Your task to perform on an android device: Open Google Maps and go to "Timeline" Image 0: 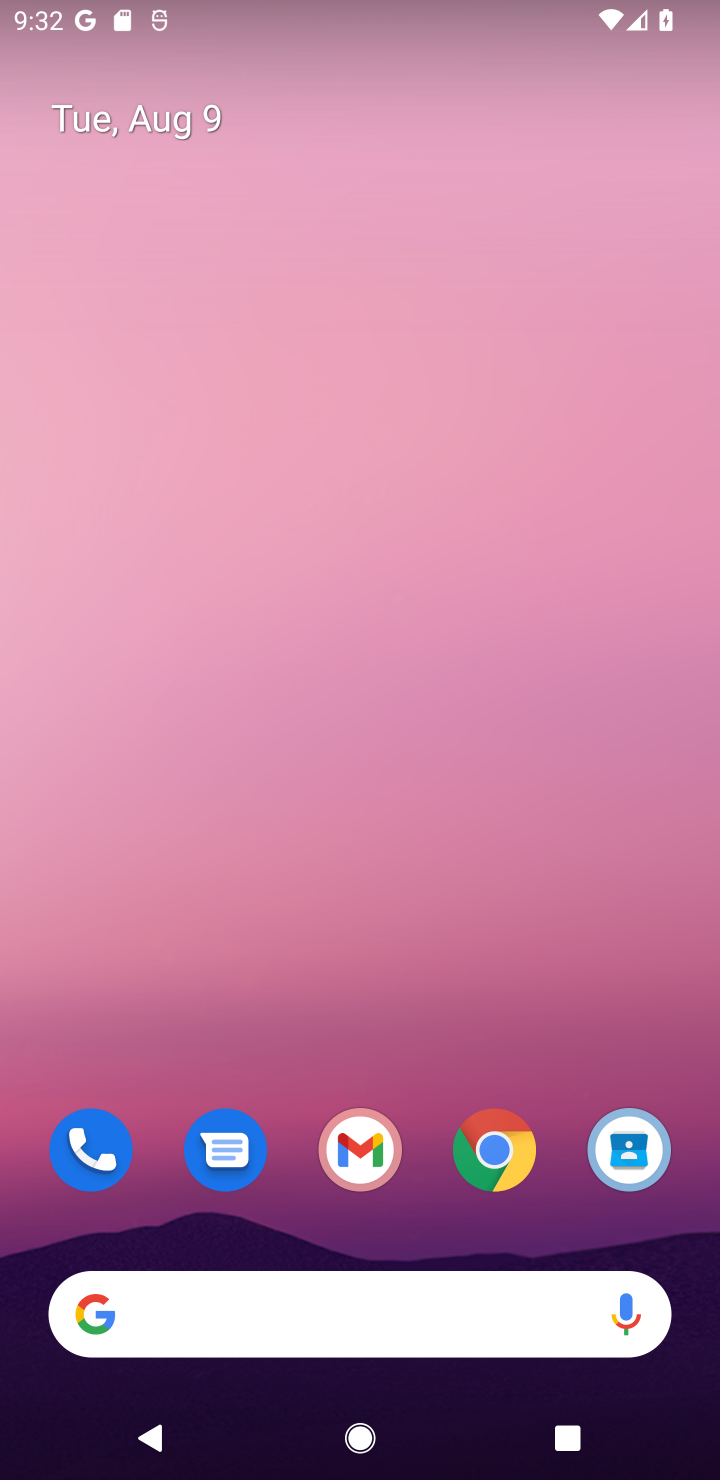
Step 0: drag from (394, 1211) to (438, 603)
Your task to perform on an android device: Open Google Maps and go to "Timeline" Image 1: 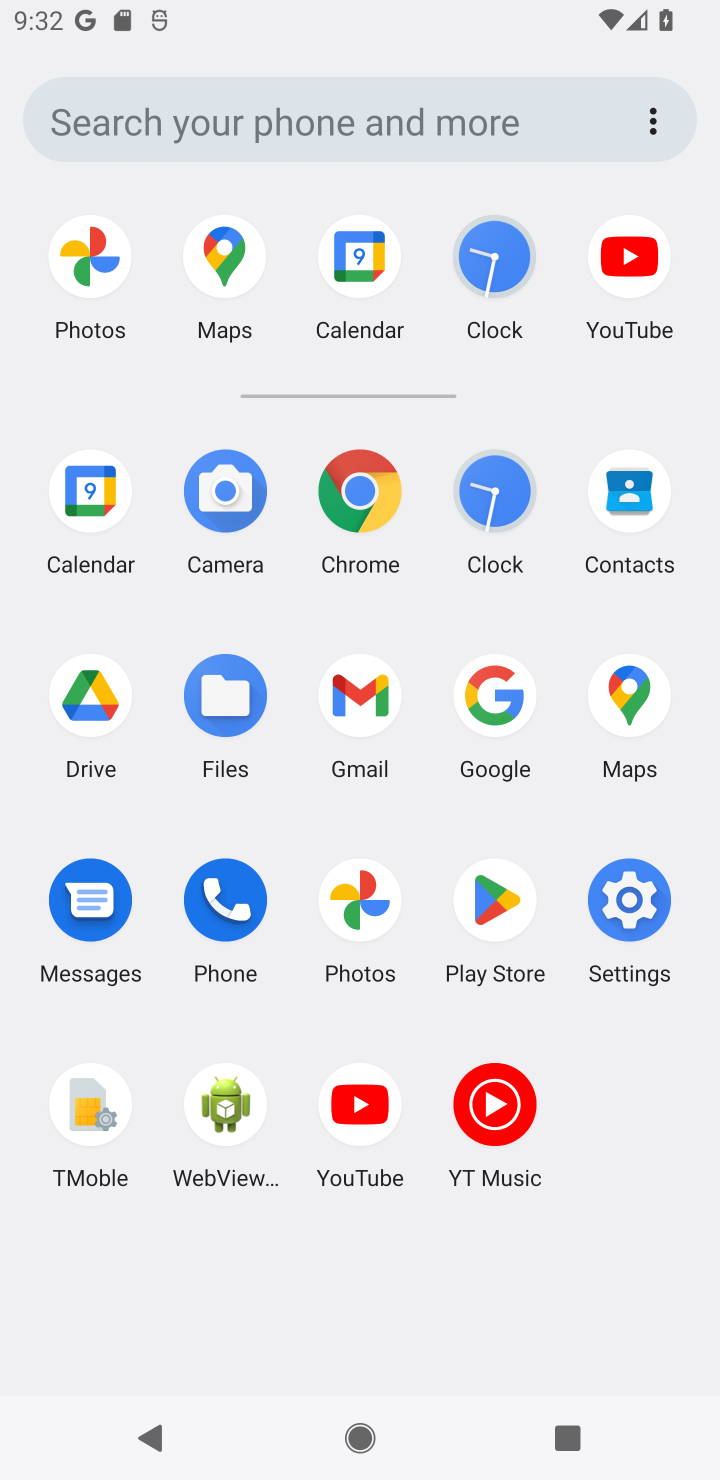
Step 1: click (508, 710)
Your task to perform on an android device: Open Google Maps and go to "Timeline" Image 2: 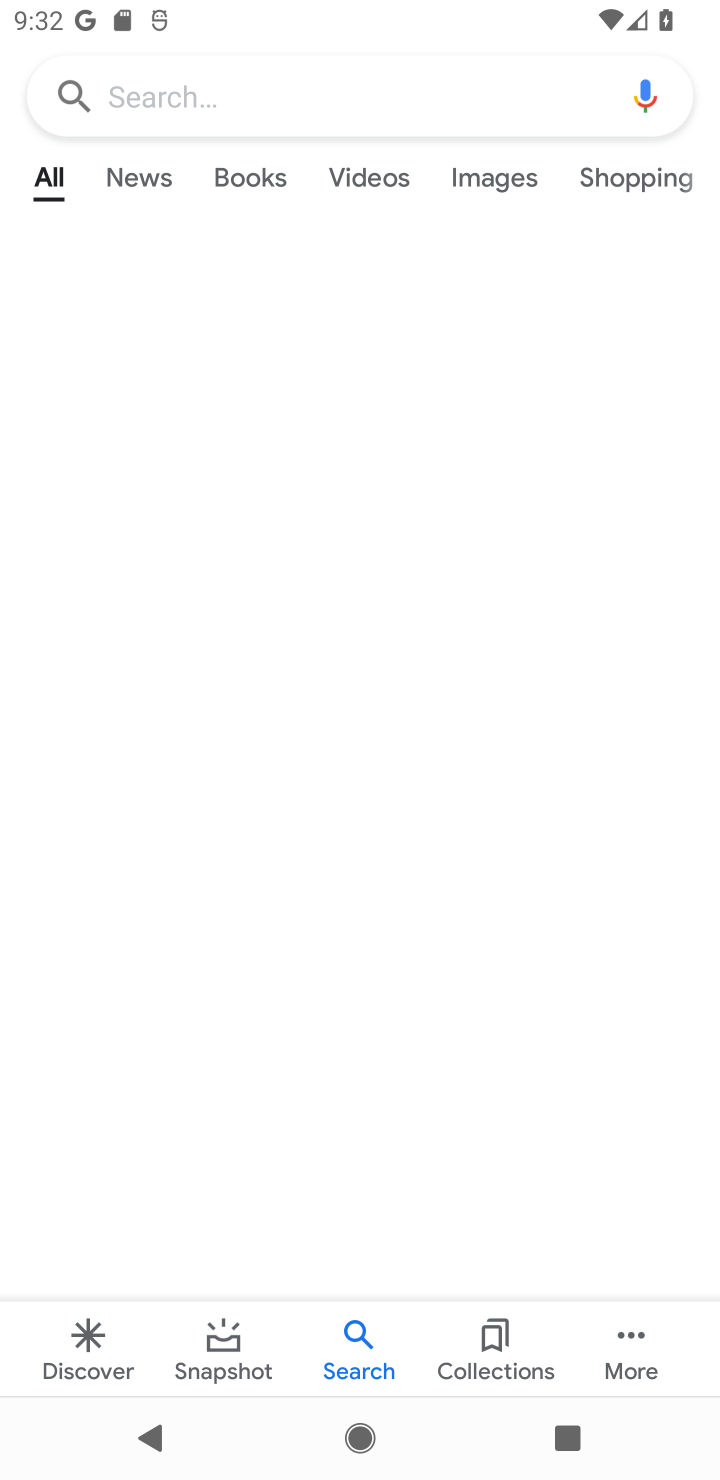
Step 2: press home button
Your task to perform on an android device: Open Google Maps and go to "Timeline" Image 3: 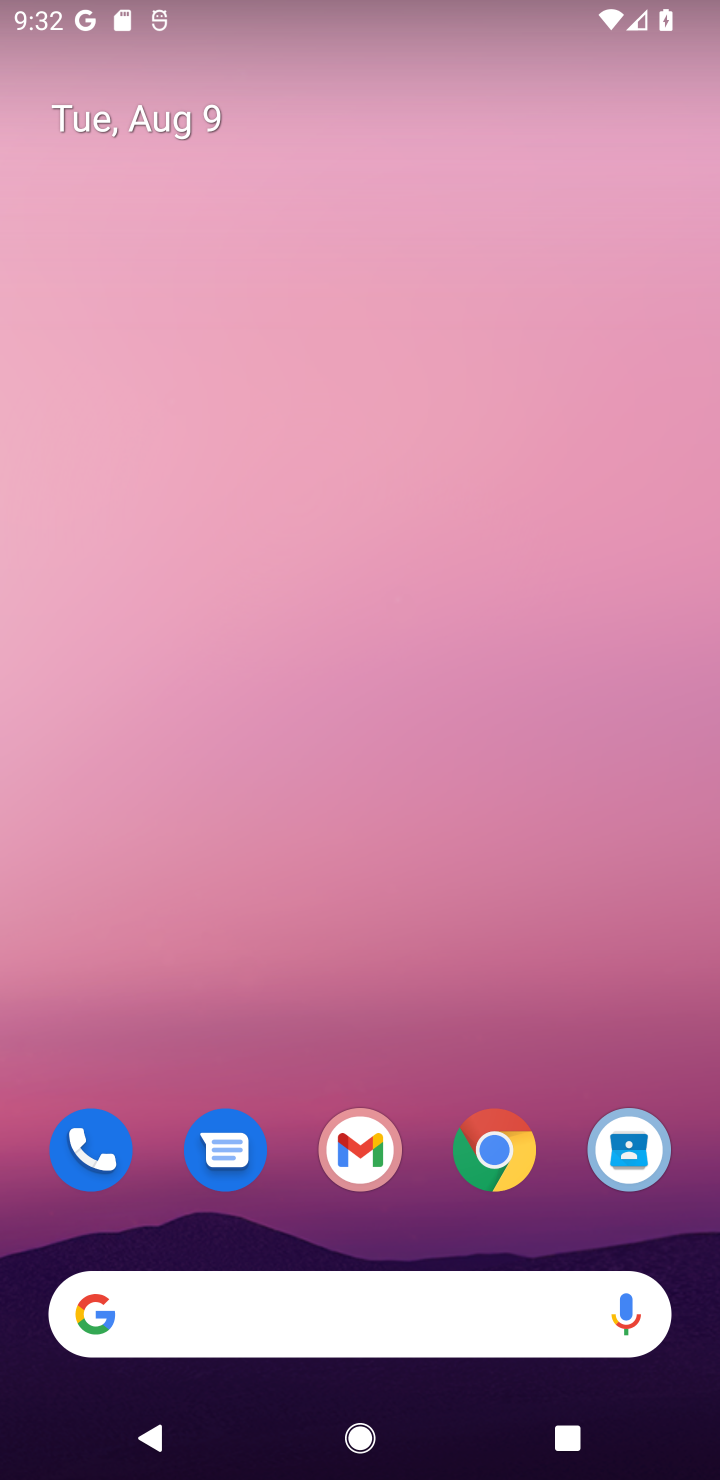
Step 3: drag from (265, 1267) to (298, 1081)
Your task to perform on an android device: Open Google Maps and go to "Timeline" Image 4: 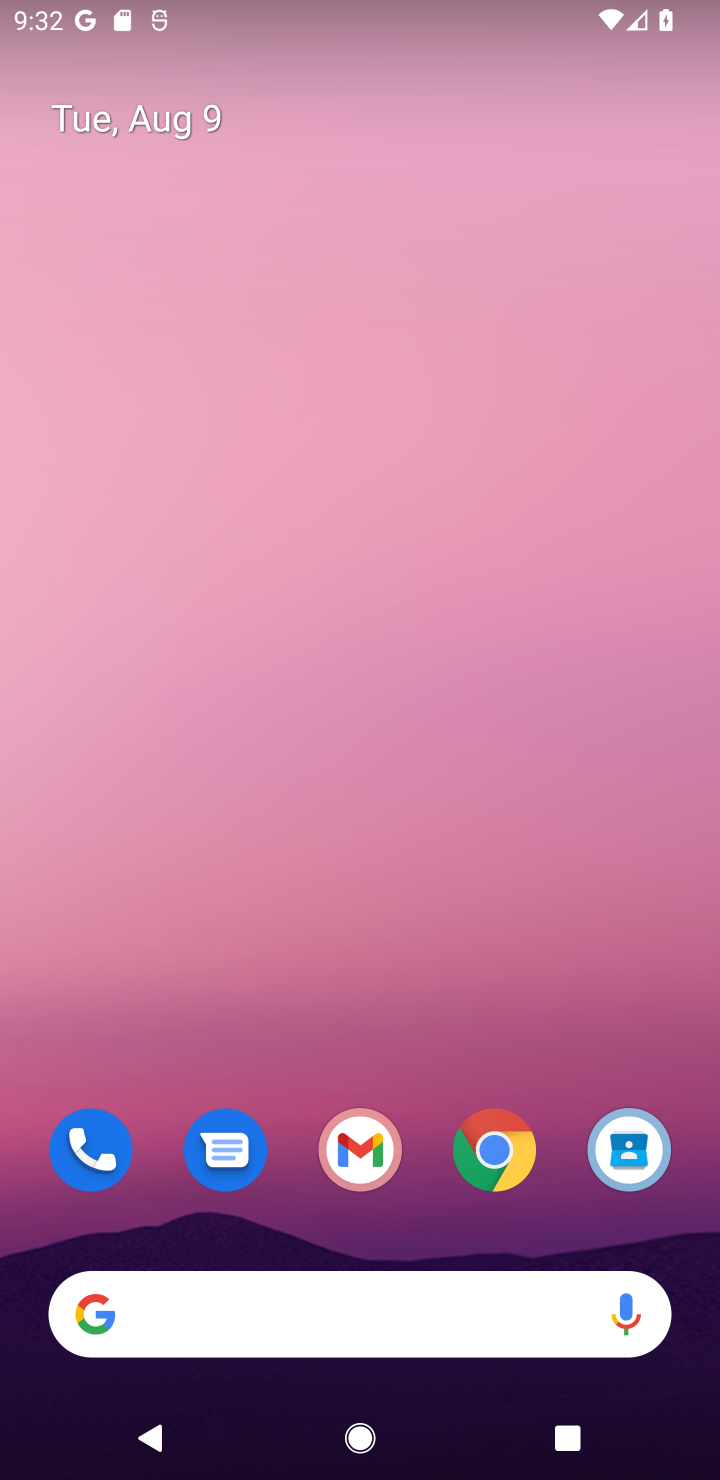
Step 4: drag from (304, 1380) to (466, 347)
Your task to perform on an android device: Open Google Maps and go to "Timeline" Image 5: 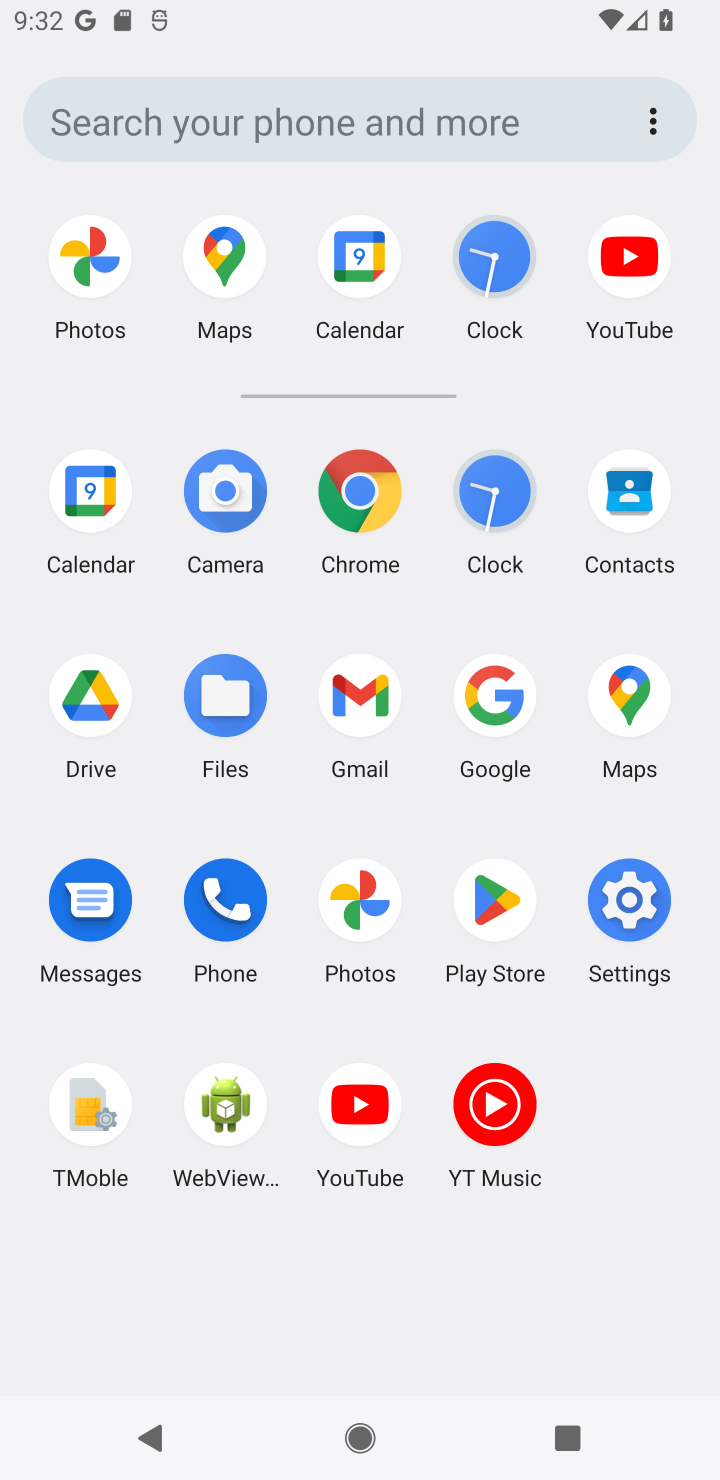
Step 5: click (591, 733)
Your task to perform on an android device: Open Google Maps and go to "Timeline" Image 6: 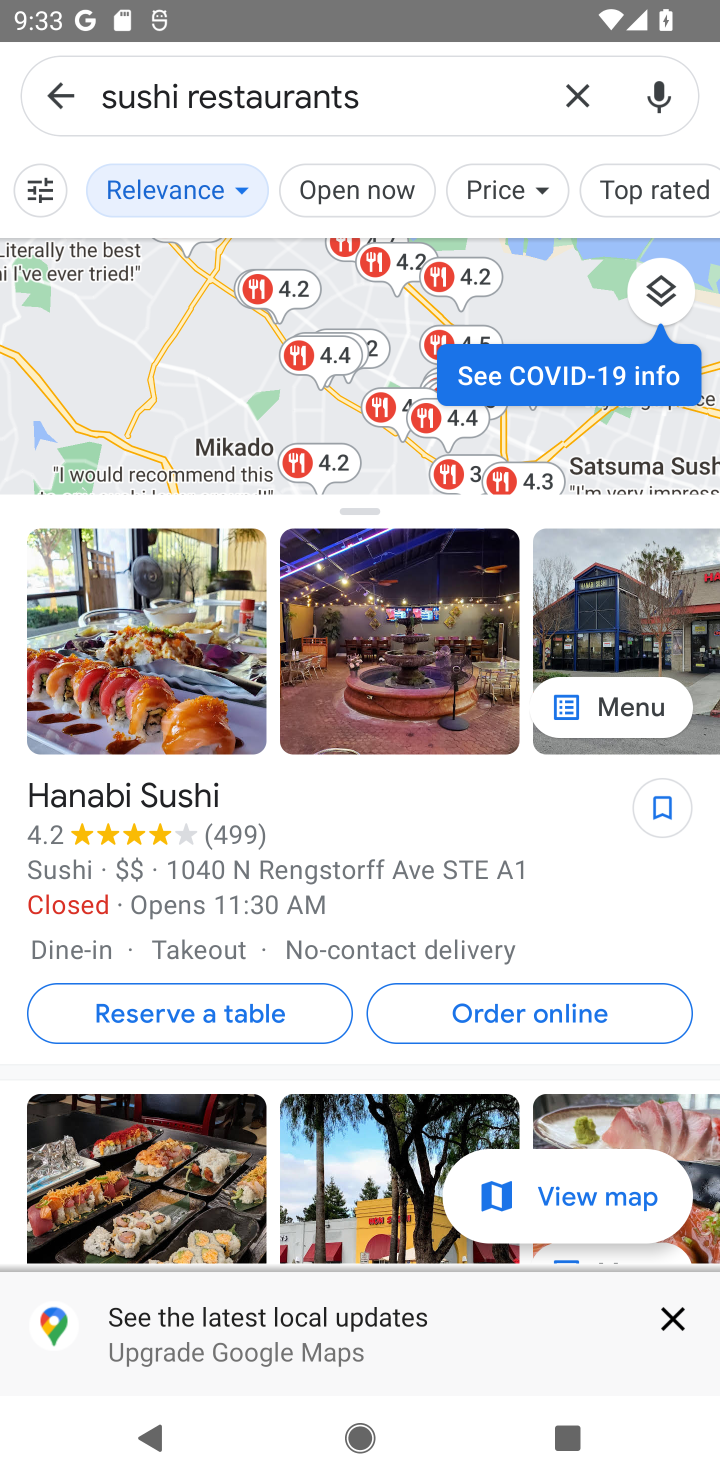
Step 6: click (45, 106)
Your task to perform on an android device: Open Google Maps and go to "Timeline" Image 7: 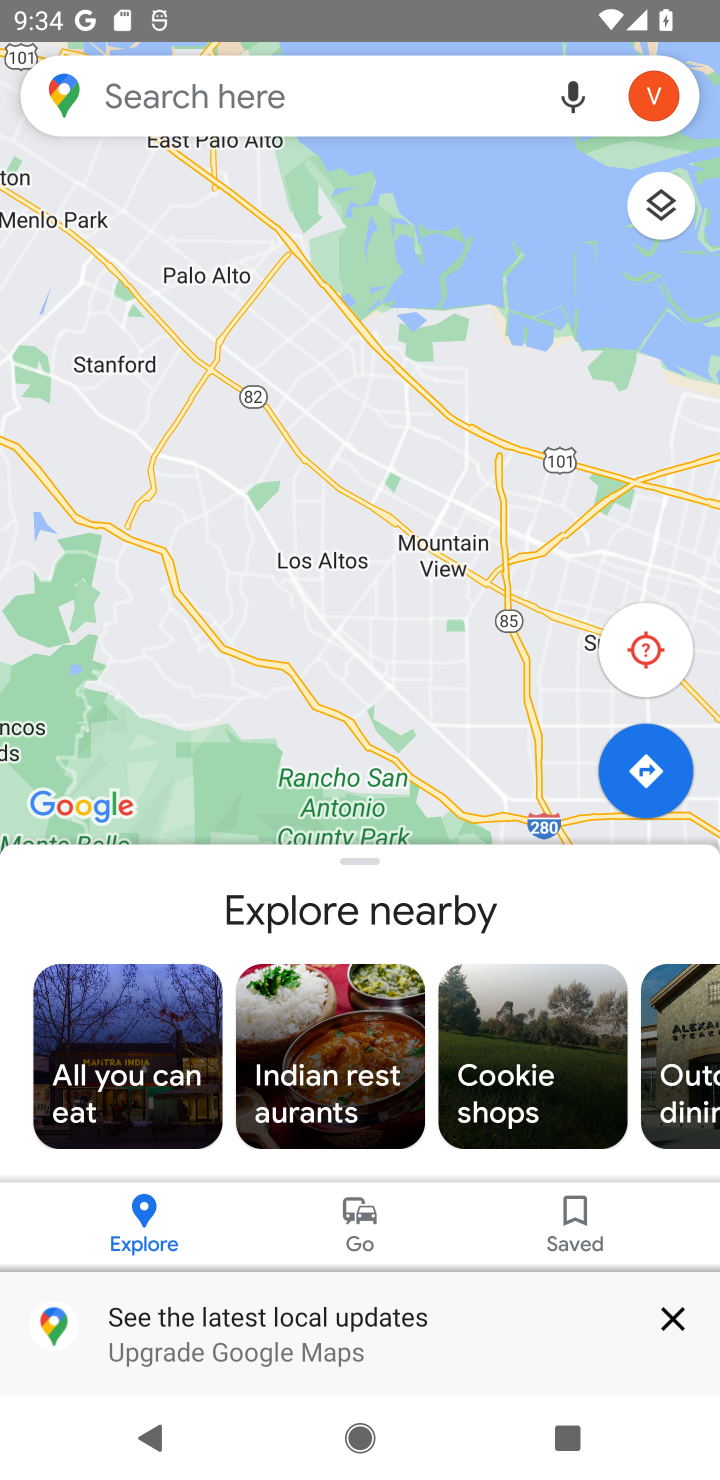
Step 7: click (660, 95)
Your task to perform on an android device: Open Google Maps and go to "Timeline" Image 8: 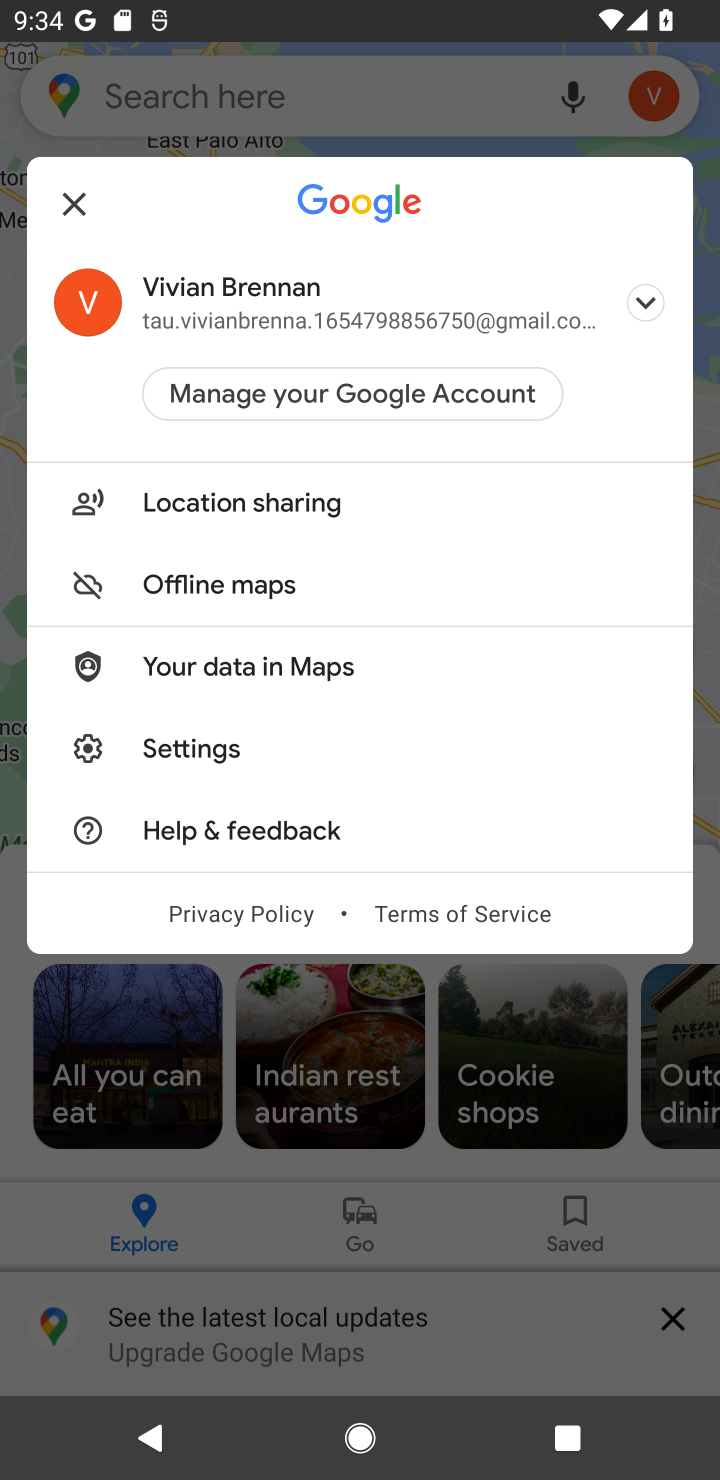
Step 8: click (75, 217)
Your task to perform on an android device: Open Google Maps and go to "Timeline" Image 9: 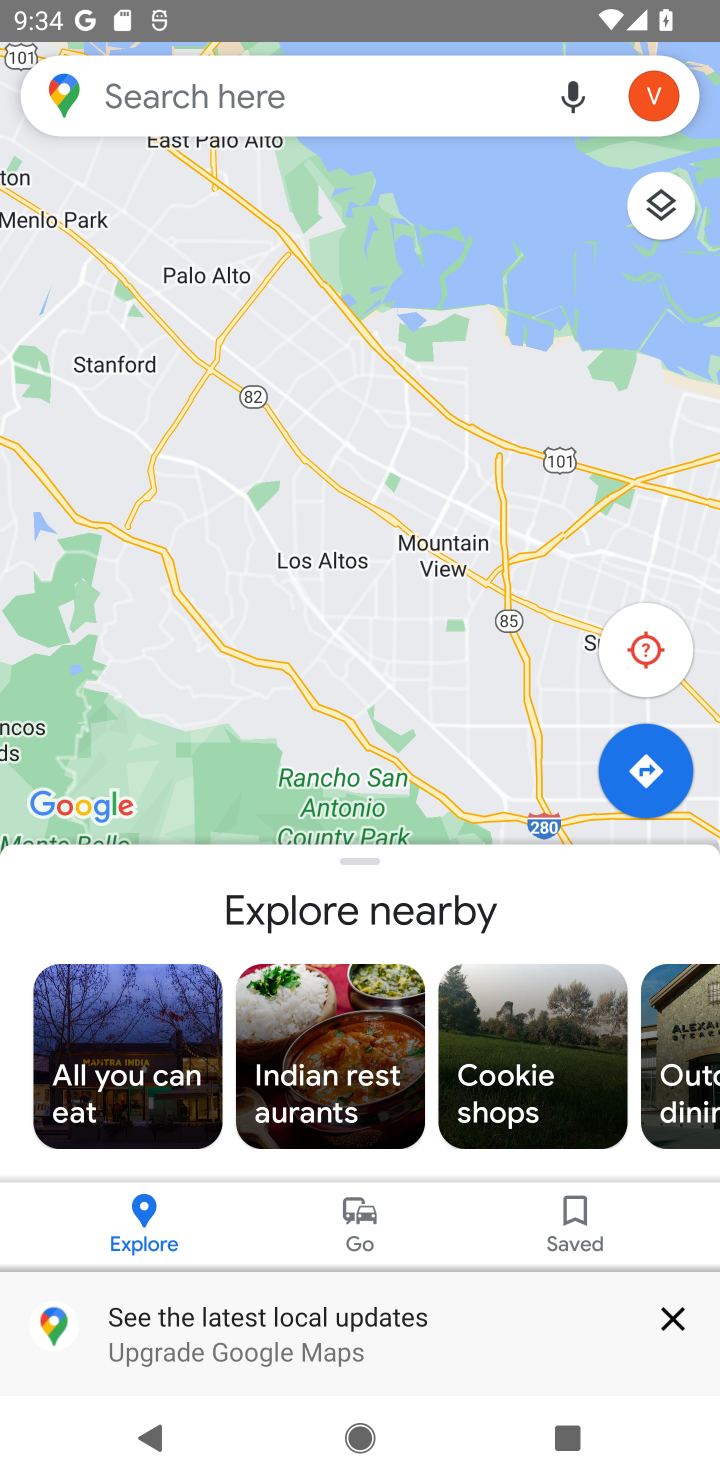
Step 9: task complete